Your task to perform on an android device: Show me the alarms in the clock app Image 0: 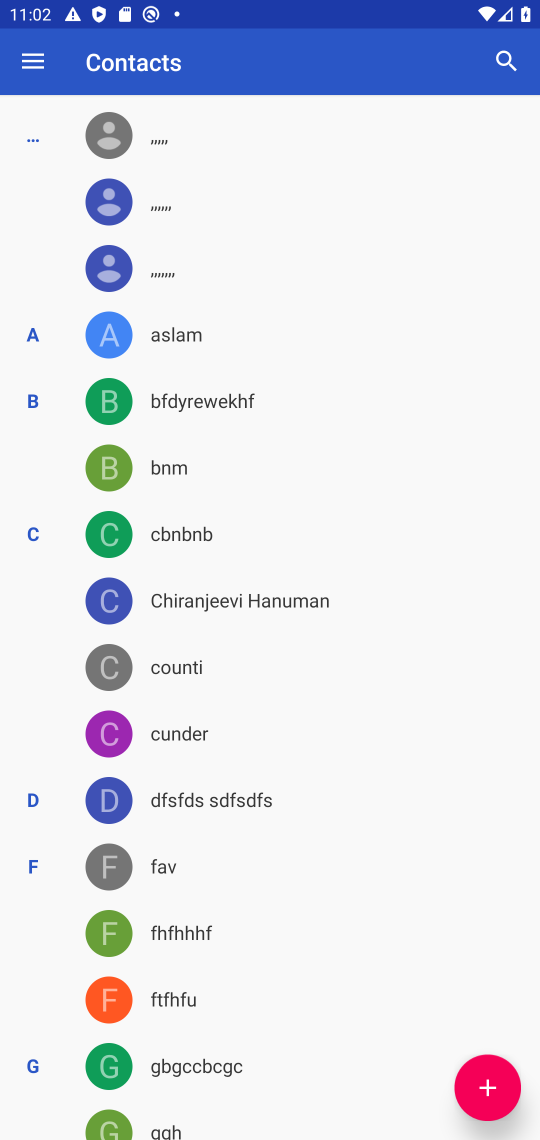
Step 0: press home button
Your task to perform on an android device: Show me the alarms in the clock app Image 1: 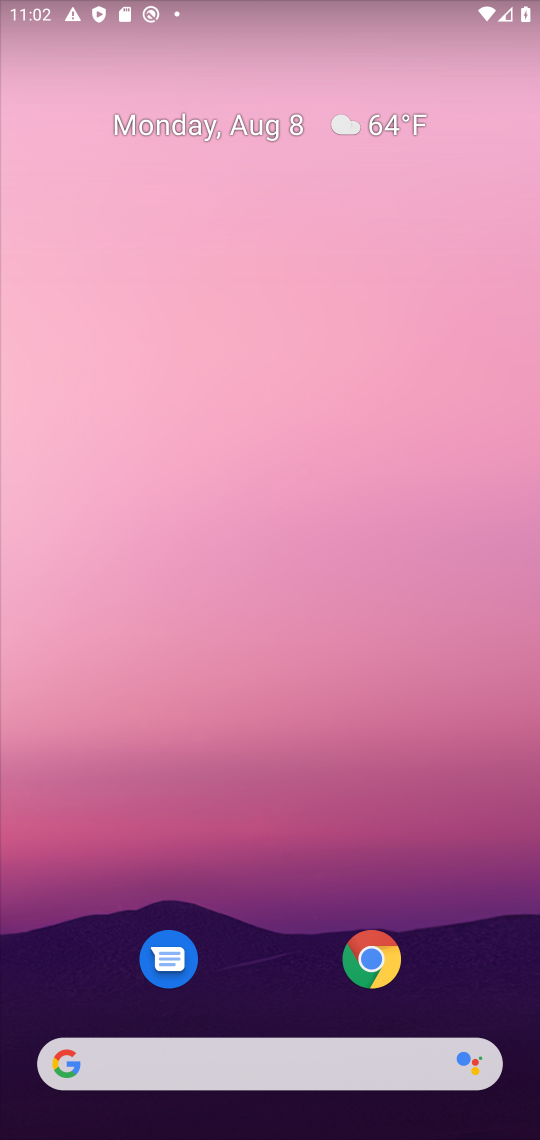
Step 1: drag from (465, 960) to (363, 122)
Your task to perform on an android device: Show me the alarms in the clock app Image 2: 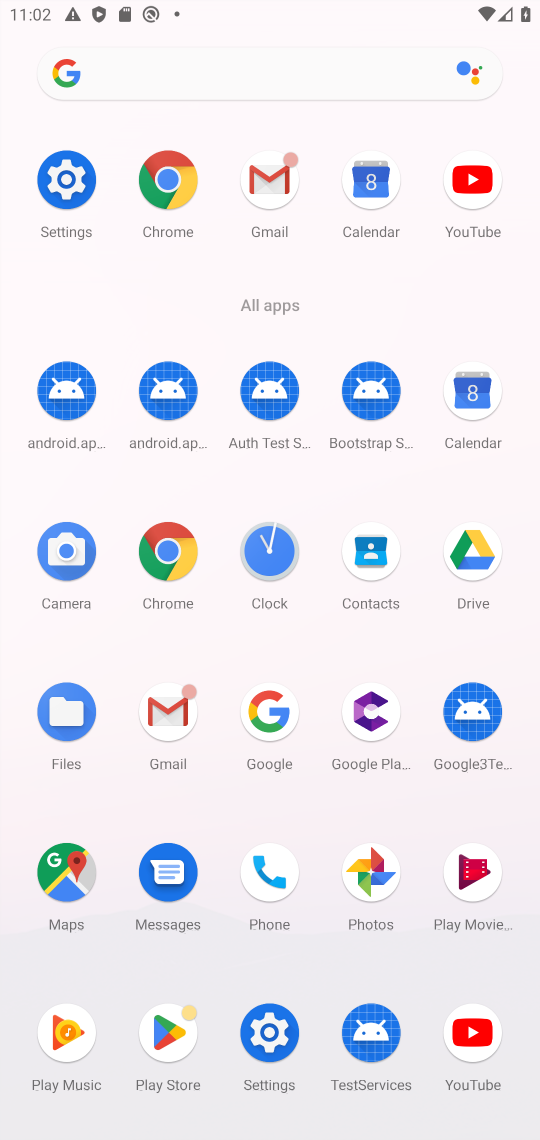
Step 2: click (287, 561)
Your task to perform on an android device: Show me the alarms in the clock app Image 3: 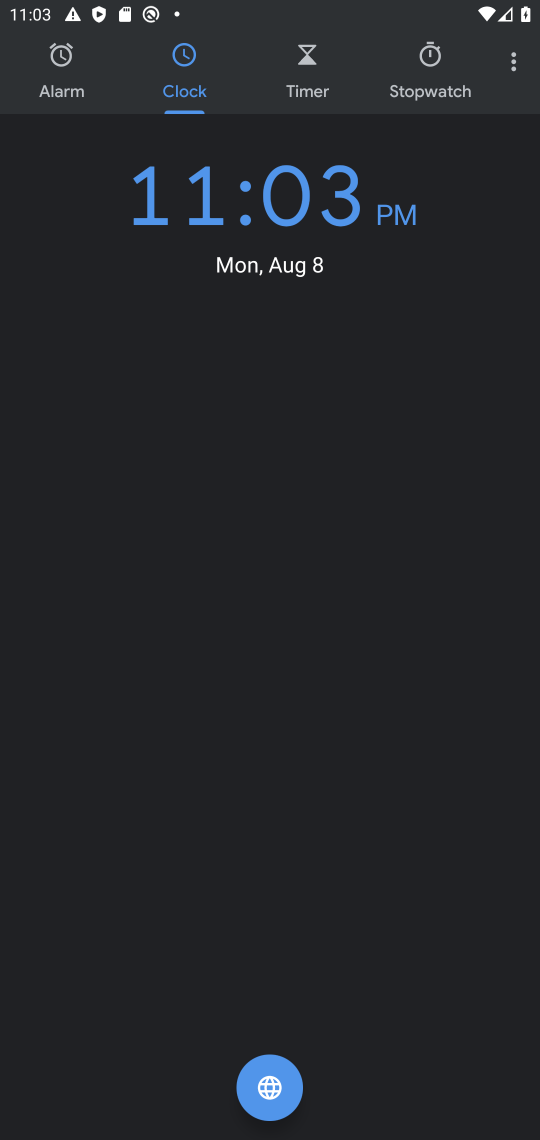
Step 3: click (59, 55)
Your task to perform on an android device: Show me the alarms in the clock app Image 4: 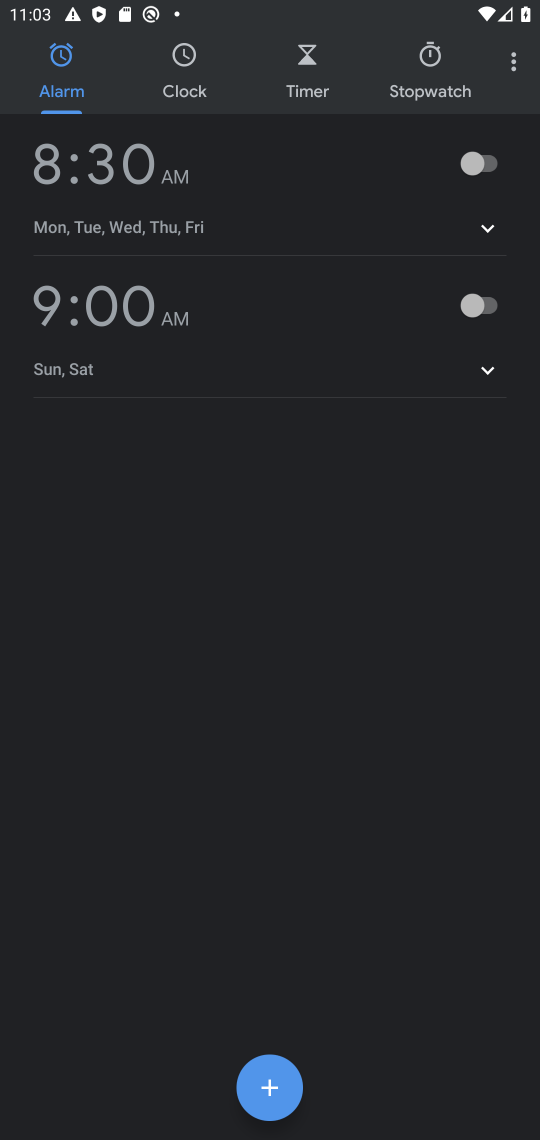
Step 4: task complete